Your task to perform on an android device: set default search engine in the chrome app Image 0: 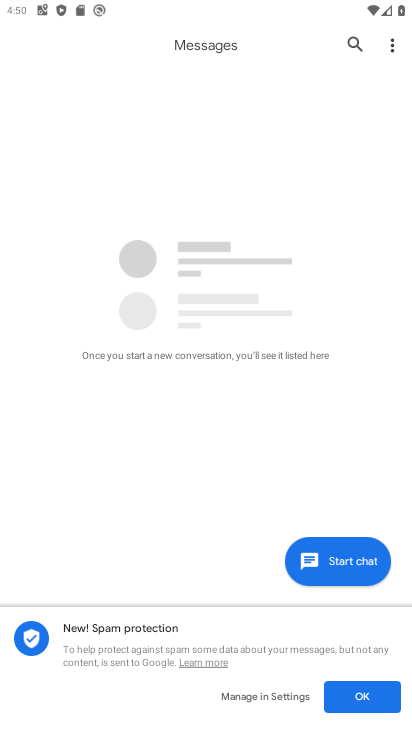
Step 0: press home button
Your task to perform on an android device: set default search engine in the chrome app Image 1: 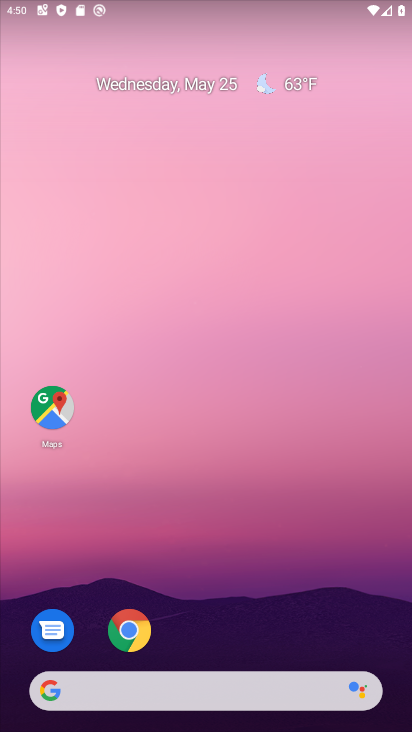
Step 1: click (147, 626)
Your task to perform on an android device: set default search engine in the chrome app Image 2: 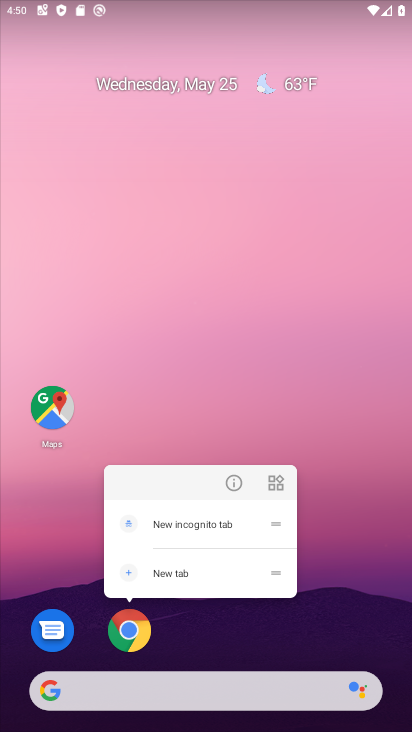
Step 2: click (140, 626)
Your task to perform on an android device: set default search engine in the chrome app Image 3: 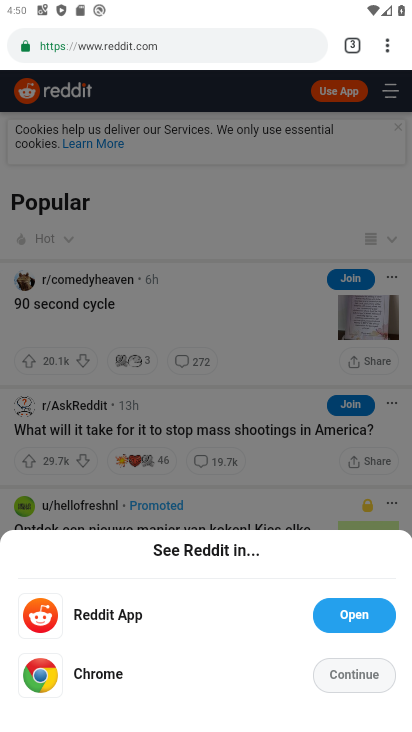
Step 3: drag from (387, 36) to (218, 501)
Your task to perform on an android device: set default search engine in the chrome app Image 4: 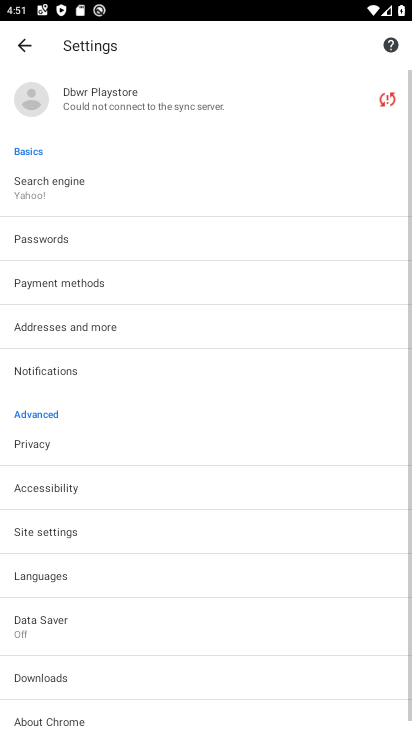
Step 4: click (32, 184)
Your task to perform on an android device: set default search engine in the chrome app Image 5: 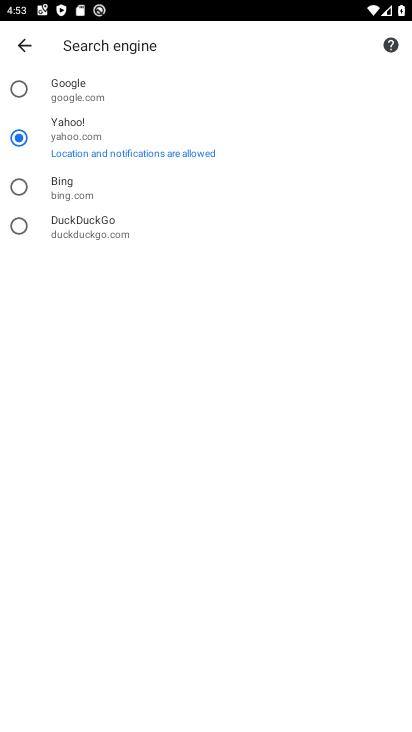
Step 5: click (20, 86)
Your task to perform on an android device: set default search engine in the chrome app Image 6: 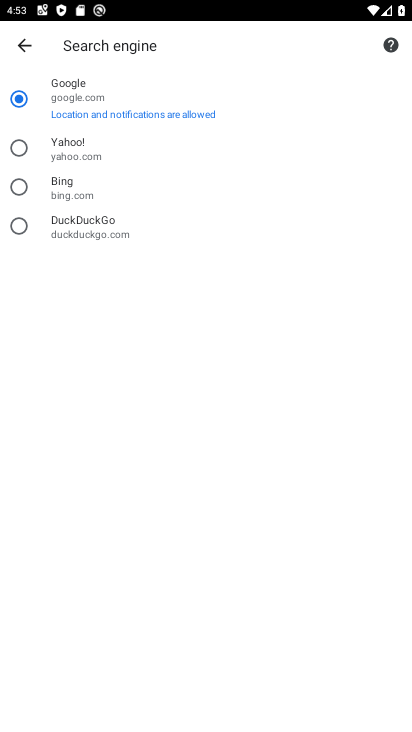
Step 6: task complete